Your task to perform on an android device: Go to Google Image 0: 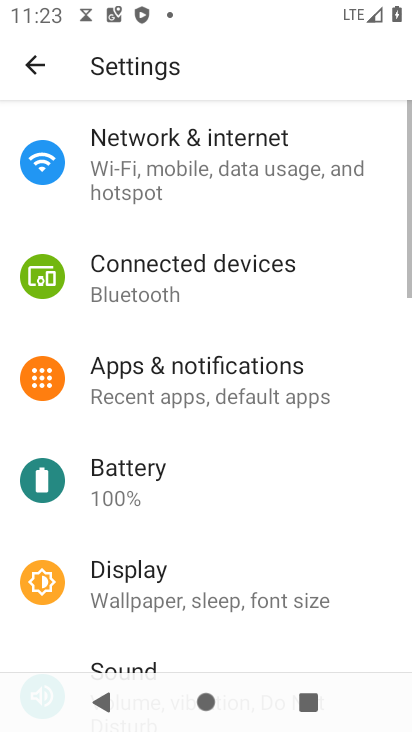
Step 0: press home button
Your task to perform on an android device: Go to Google Image 1: 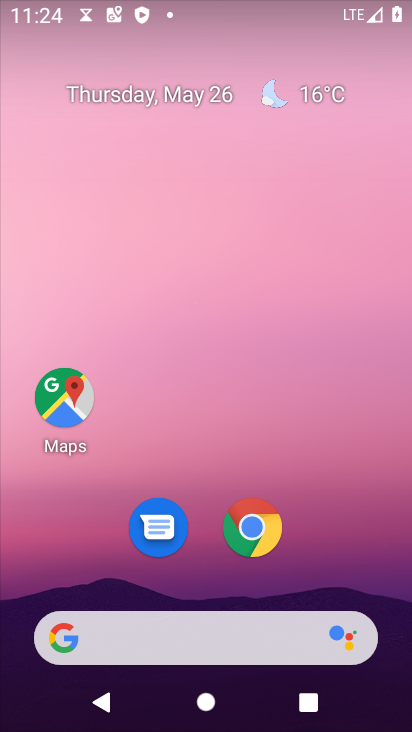
Step 1: drag from (209, 379) to (208, 45)
Your task to perform on an android device: Go to Google Image 2: 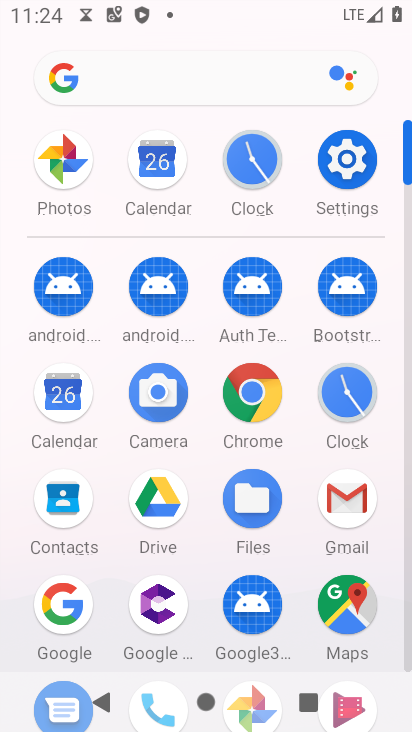
Step 2: click (53, 591)
Your task to perform on an android device: Go to Google Image 3: 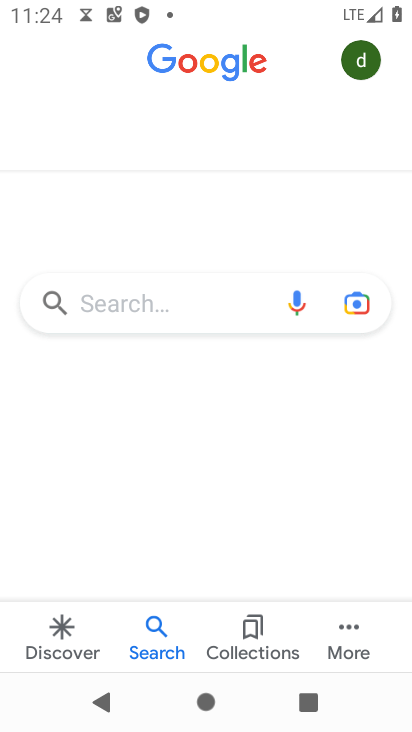
Step 3: task complete